Your task to perform on an android device: turn notification dots on Image 0: 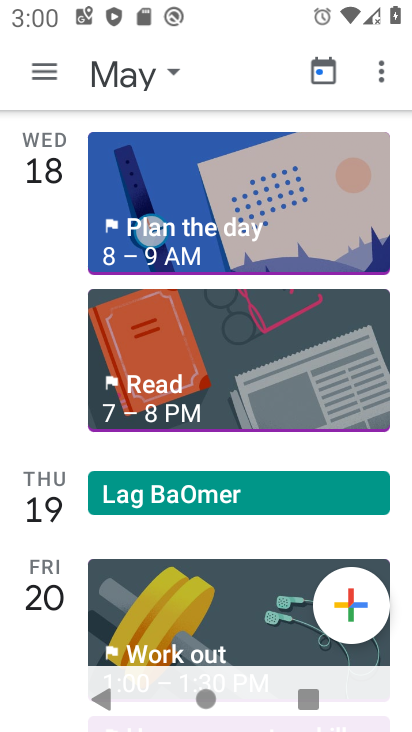
Step 0: press home button
Your task to perform on an android device: turn notification dots on Image 1: 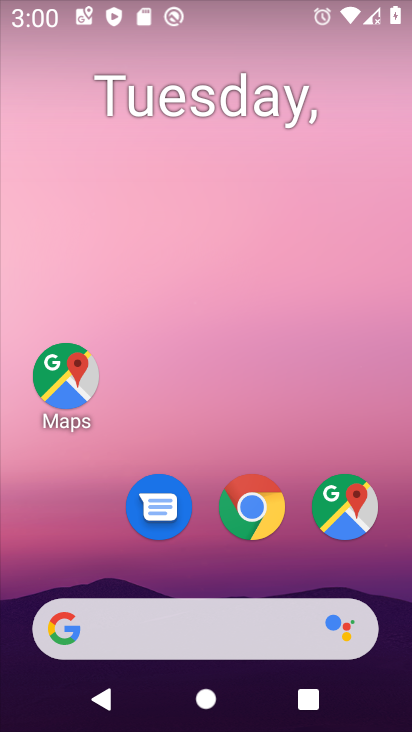
Step 1: drag from (229, 557) to (239, 507)
Your task to perform on an android device: turn notification dots on Image 2: 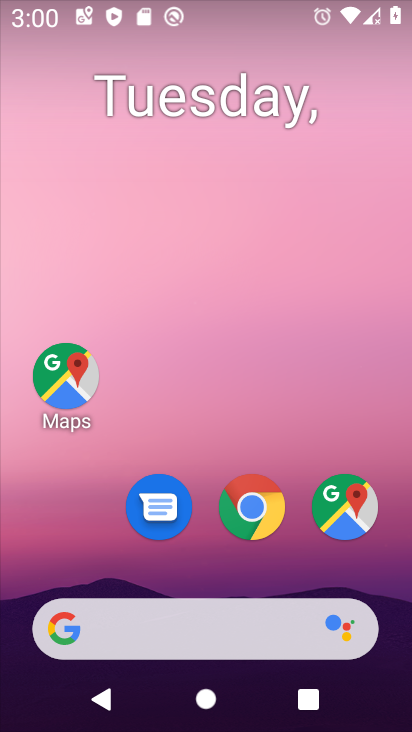
Step 2: drag from (239, 521) to (243, 78)
Your task to perform on an android device: turn notification dots on Image 3: 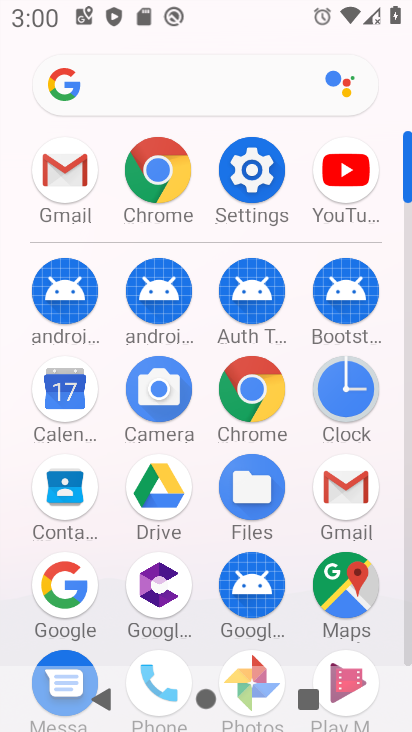
Step 3: click (247, 159)
Your task to perform on an android device: turn notification dots on Image 4: 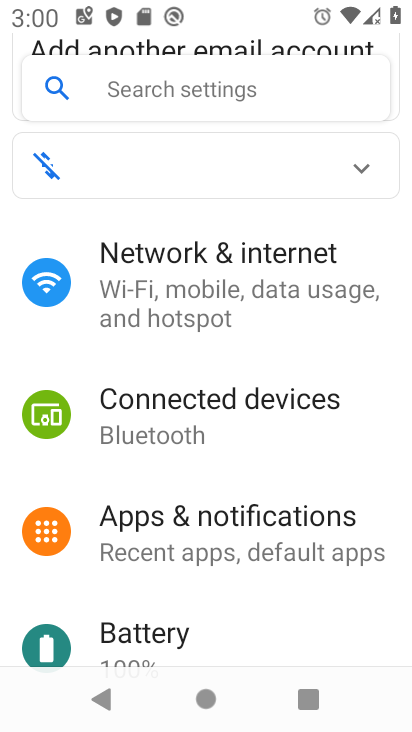
Step 4: click (183, 83)
Your task to perform on an android device: turn notification dots on Image 5: 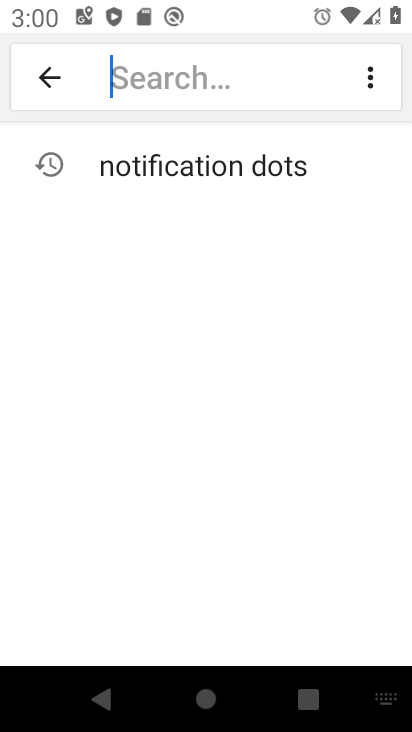
Step 5: click (204, 167)
Your task to perform on an android device: turn notification dots on Image 6: 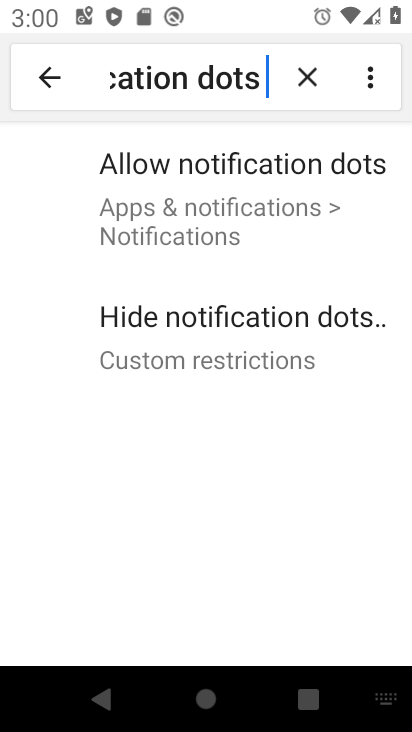
Step 6: click (198, 157)
Your task to perform on an android device: turn notification dots on Image 7: 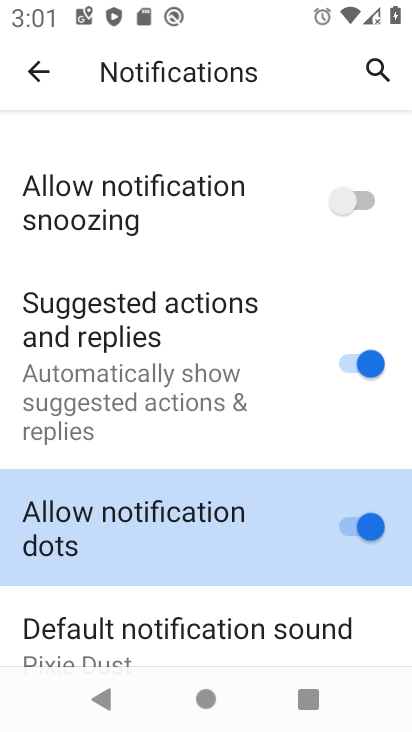
Step 7: task complete